Your task to perform on an android device: change the clock display to show seconds Image 0: 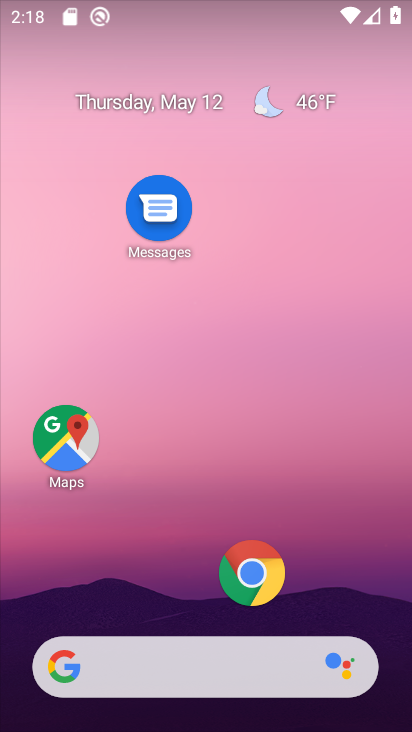
Step 0: click (212, 148)
Your task to perform on an android device: change the clock display to show seconds Image 1: 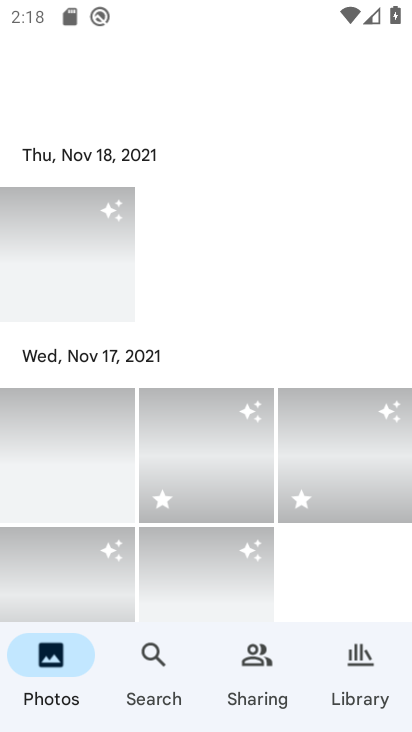
Step 1: click (253, 576)
Your task to perform on an android device: change the clock display to show seconds Image 2: 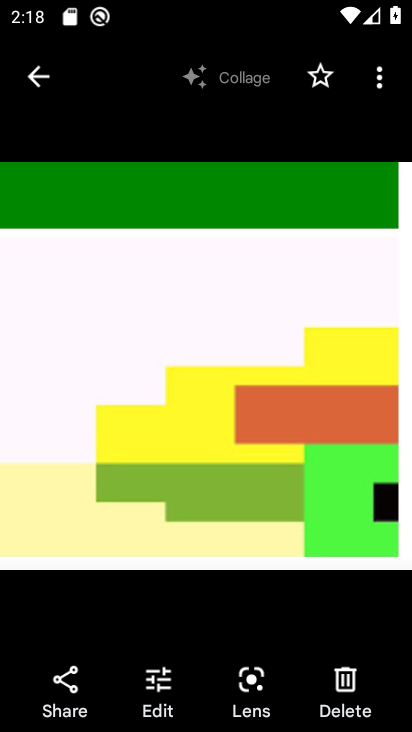
Step 2: press back button
Your task to perform on an android device: change the clock display to show seconds Image 3: 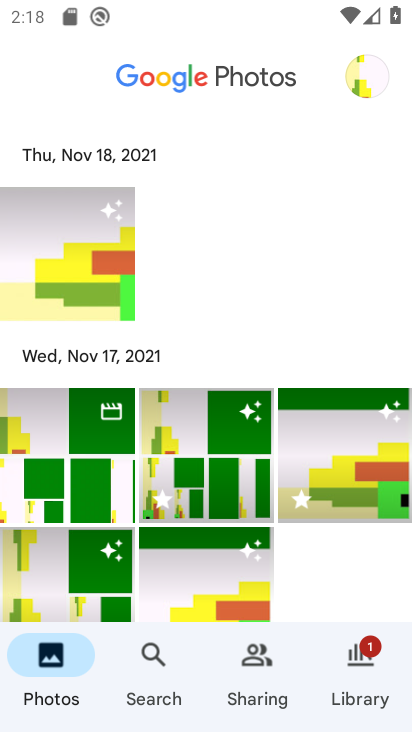
Step 3: press back button
Your task to perform on an android device: change the clock display to show seconds Image 4: 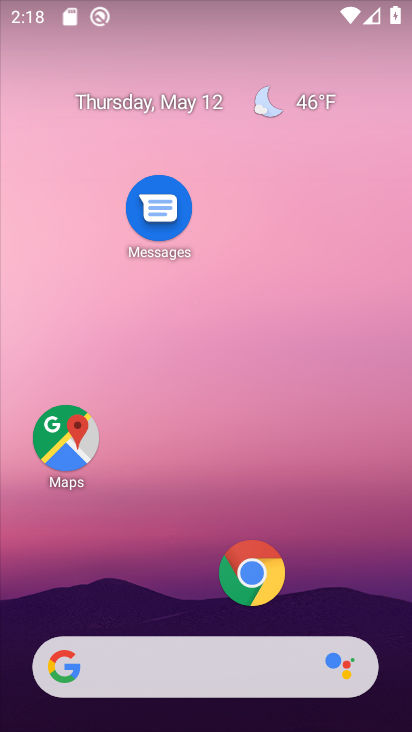
Step 4: drag from (197, 589) to (197, 91)
Your task to perform on an android device: change the clock display to show seconds Image 5: 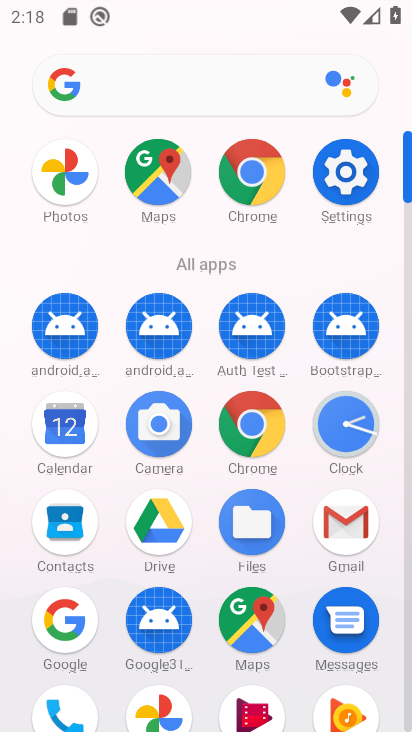
Step 5: click (349, 407)
Your task to perform on an android device: change the clock display to show seconds Image 6: 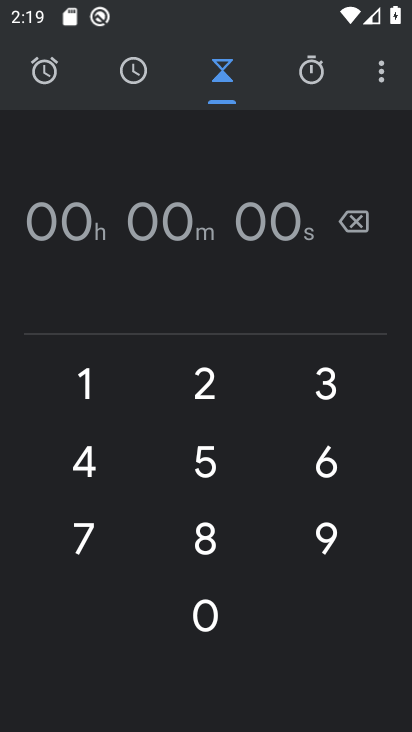
Step 6: click (363, 64)
Your task to perform on an android device: change the clock display to show seconds Image 7: 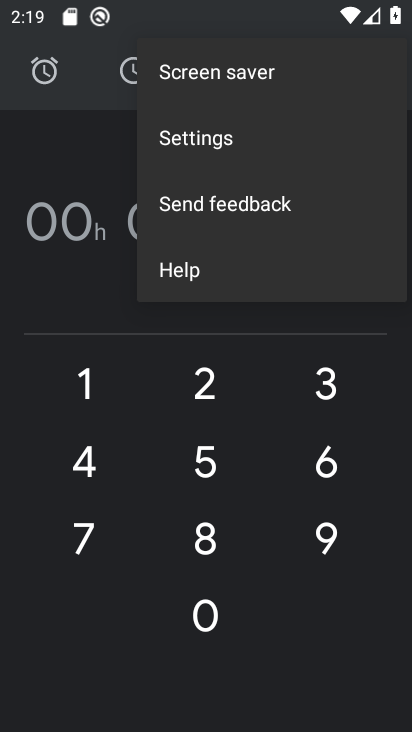
Step 7: click (210, 132)
Your task to perform on an android device: change the clock display to show seconds Image 8: 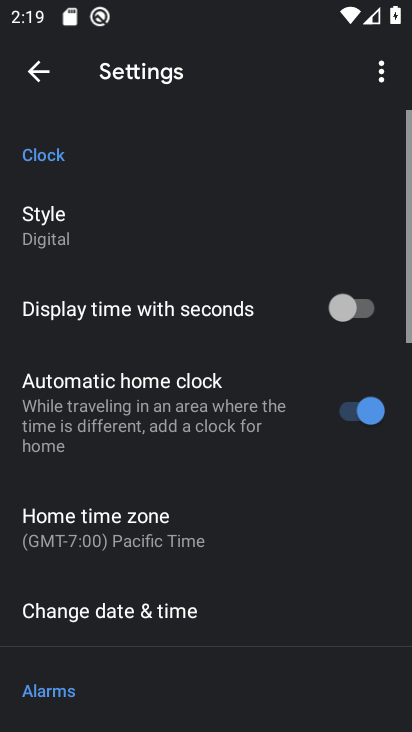
Step 8: click (327, 290)
Your task to perform on an android device: change the clock display to show seconds Image 9: 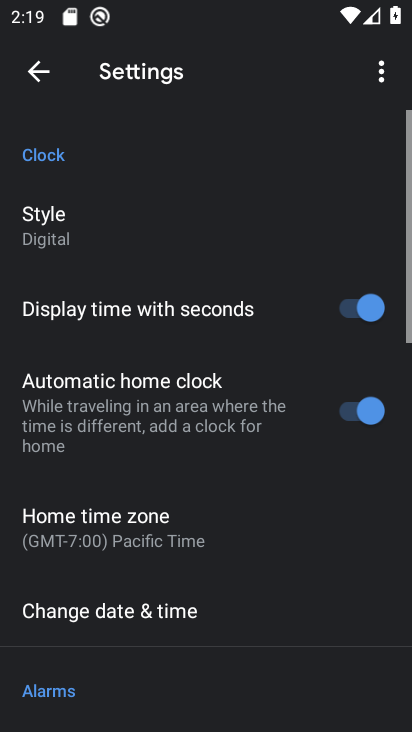
Step 9: task complete